Your task to perform on an android device: turn notification dots on Image 0: 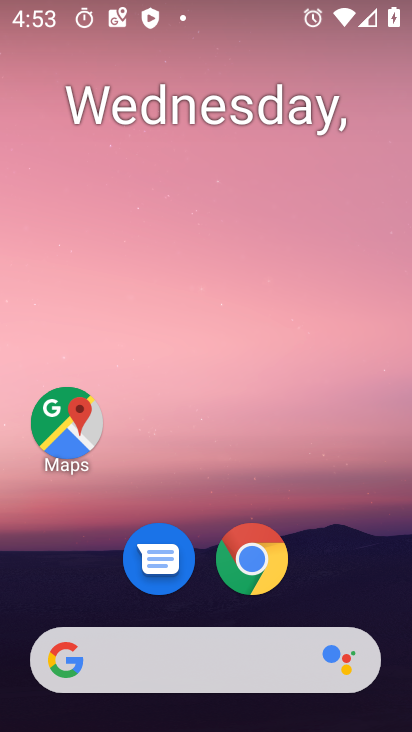
Step 0: drag from (370, 577) to (272, 188)
Your task to perform on an android device: turn notification dots on Image 1: 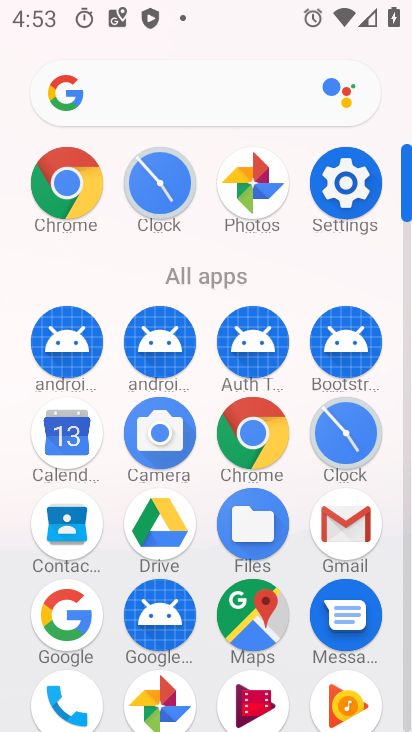
Step 1: click (354, 195)
Your task to perform on an android device: turn notification dots on Image 2: 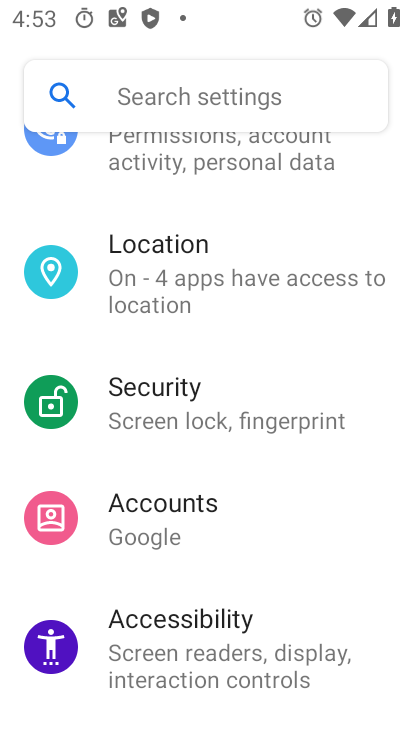
Step 2: drag from (307, 215) to (297, 723)
Your task to perform on an android device: turn notification dots on Image 3: 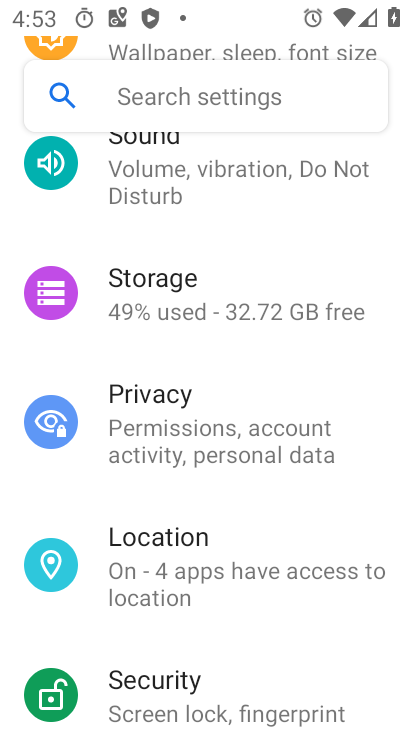
Step 3: drag from (314, 244) to (312, 650)
Your task to perform on an android device: turn notification dots on Image 4: 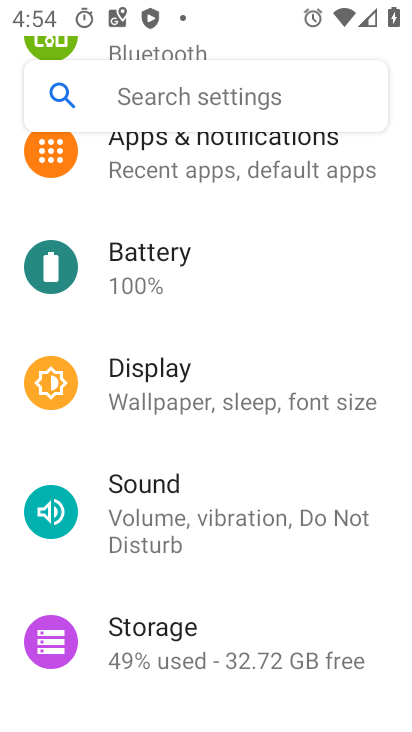
Step 4: click (323, 168)
Your task to perform on an android device: turn notification dots on Image 5: 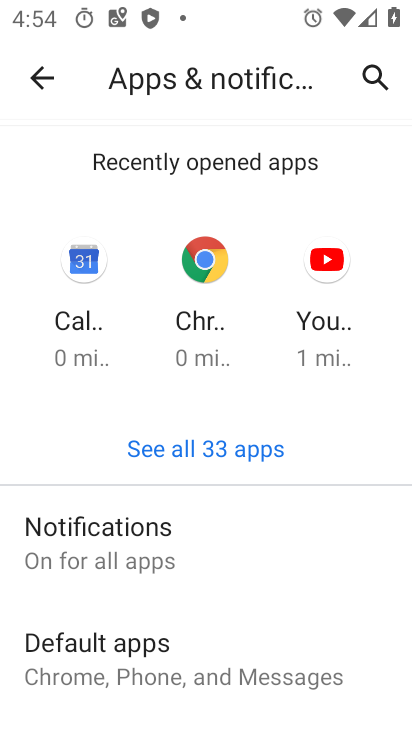
Step 5: click (266, 558)
Your task to perform on an android device: turn notification dots on Image 6: 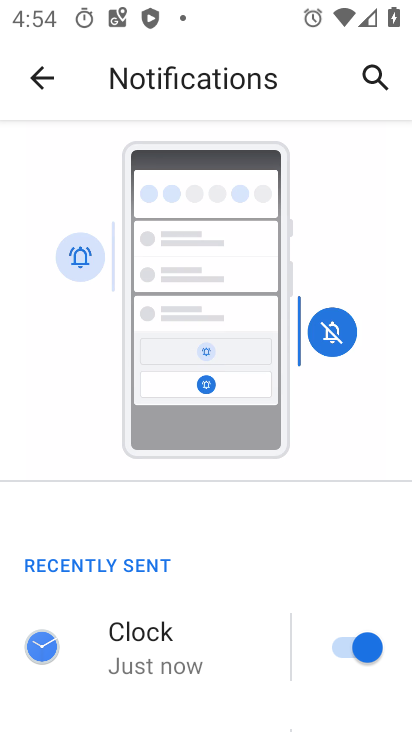
Step 6: drag from (266, 558) to (225, 251)
Your task to perform on an android device: turn notification dots on Image 7: 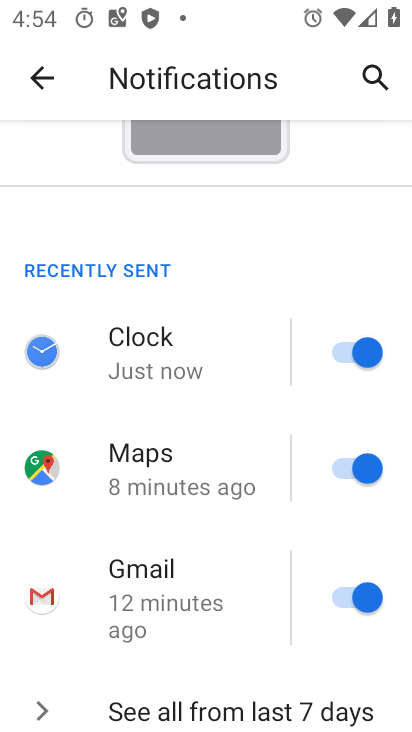
Step 7: drag from (245, 674) to (227, 240)
Your task to perform on an android device: turn notification dots on Image 8: 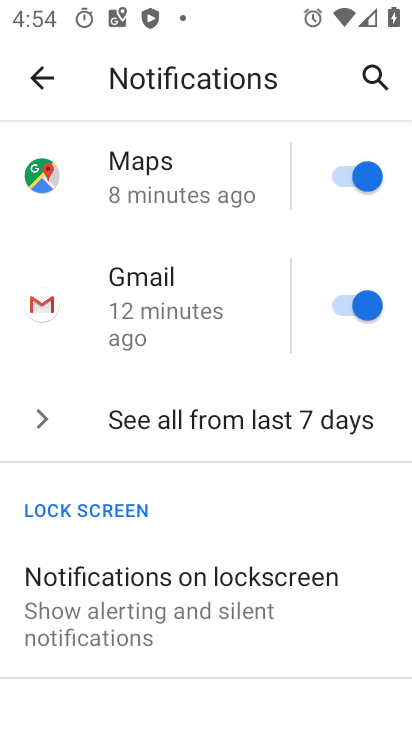
Step 8: drag from (328, 610) to (303, 263)
Your task to perform on an android device: turn notification dots on Image 9: 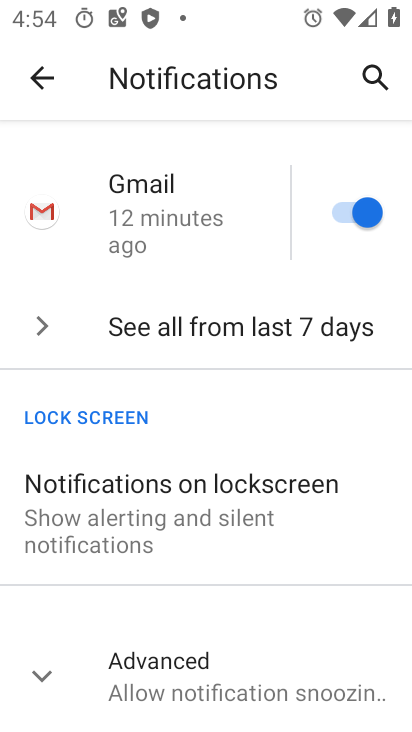
Step 9: drag from (307, 644) to (271, 281)
Your task to perform on an android device: turn notification dots on Image 10: 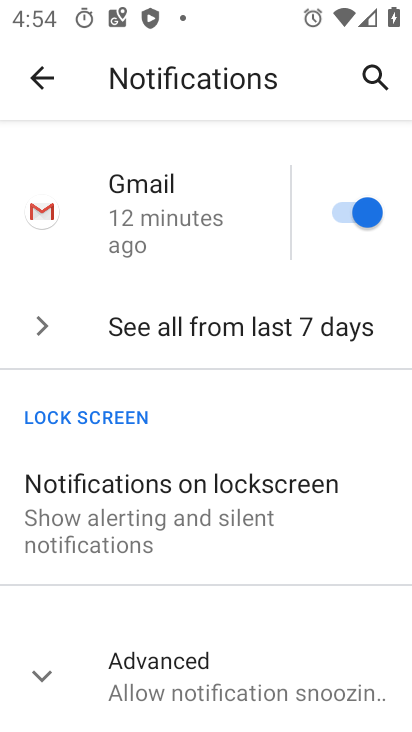
Step 10: click (271, 665)
Your task to perform on an android device: turn notification dots on Image 11: 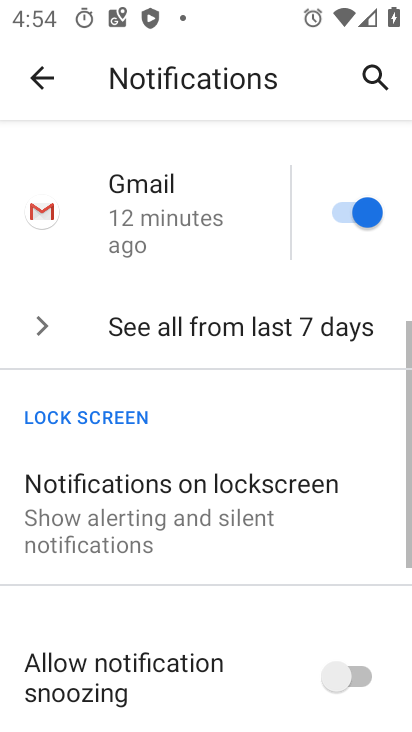
Step 11: task complete